Your task to perform on an android device: change timer sound Image 0: 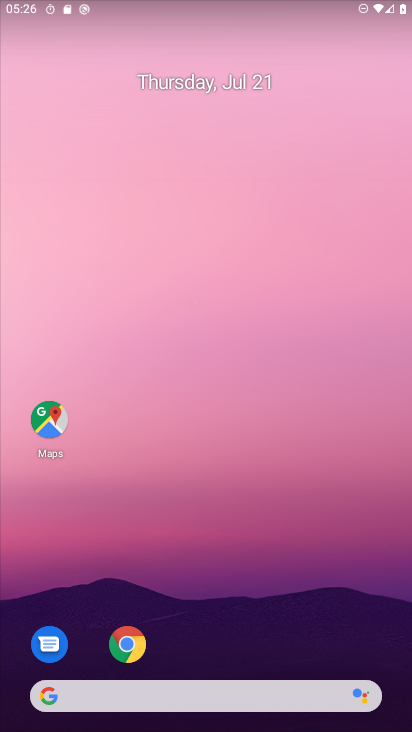
Step 0: click (190, 135)
Your task to perform on an android device: change timer sound Image 1: 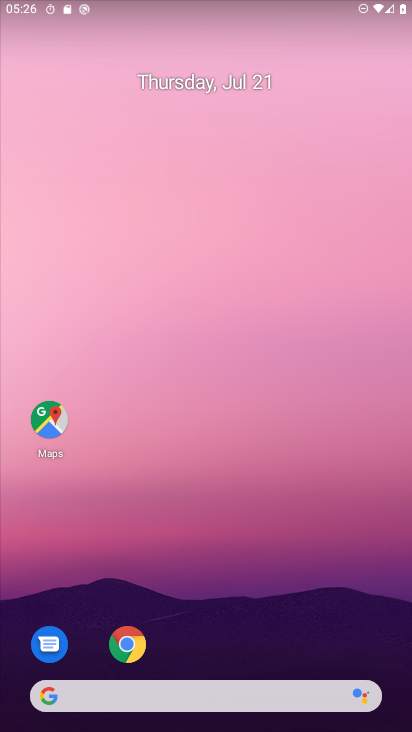
Step 1: drag from (191, 591) to (206, 115)
Your task to perform on an android device: change timer sound Image 2: 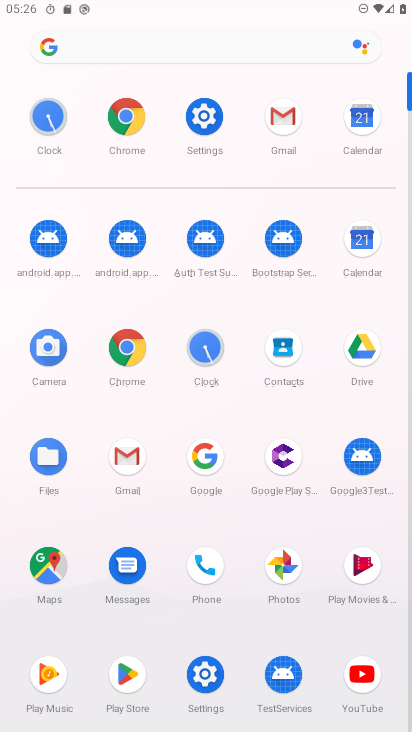
Step 2: click (207, 357)
Your task to perform on an android device: change timer sound Image 3: 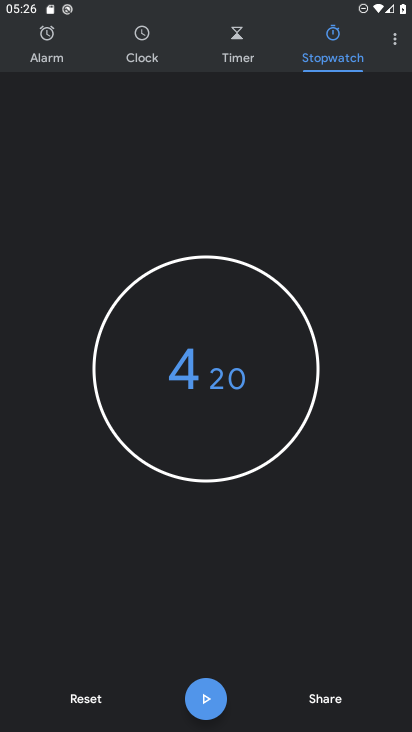
Step 3: click (393, 38)
Your task to perform on an android device: change timer sound Image 4: 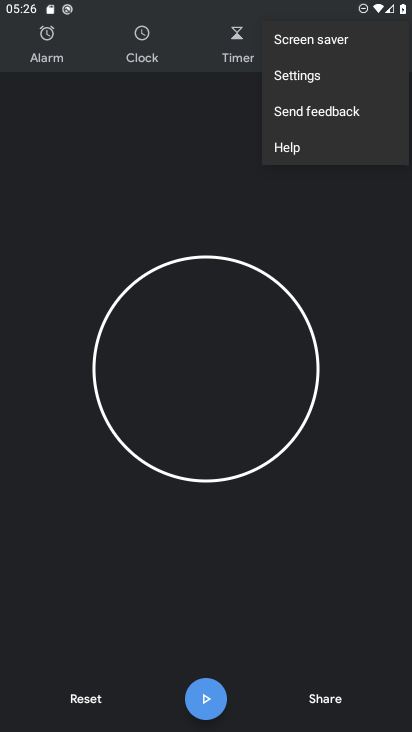
Step 4: click (313, 72)
Your task to perform on an android device: change timer sound Image 5: 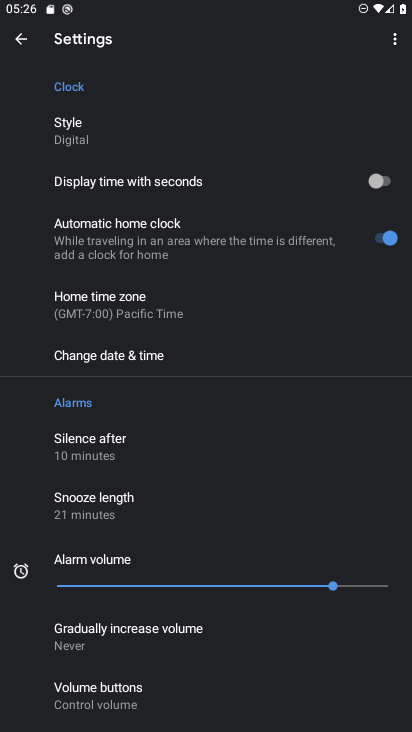
Step 5: drag from (90, 616) to (148, 233)
Your task to perform on an android device: change timer sound Image 6: 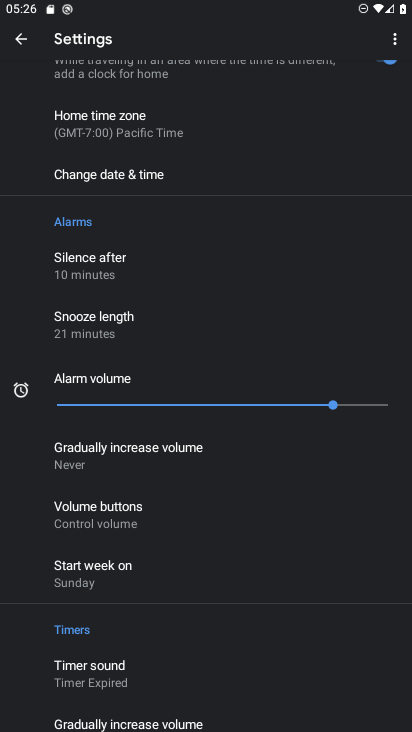
Step 6: click (144, 190)
Your task to perform on an android device: change timer sound Image 7: 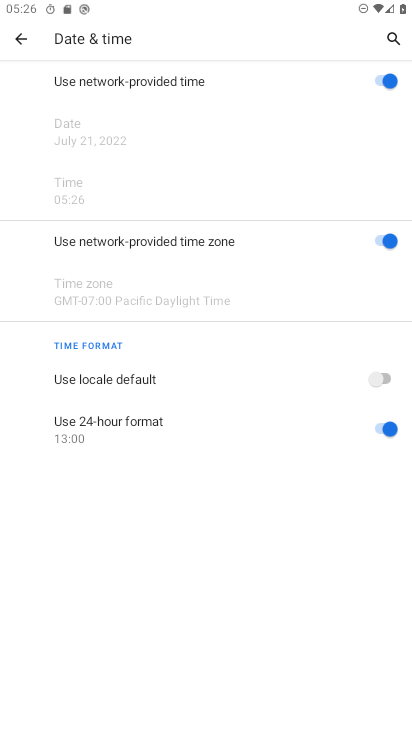
Step 7: click (23, 39)
Your task to perform on an android device: change timer sound Image 8: 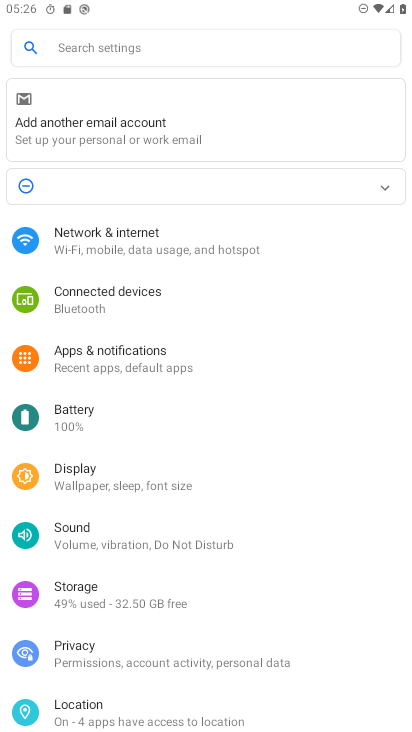
Step 8: press back button
Your task to perform on an android device: change timer sound Image 9: 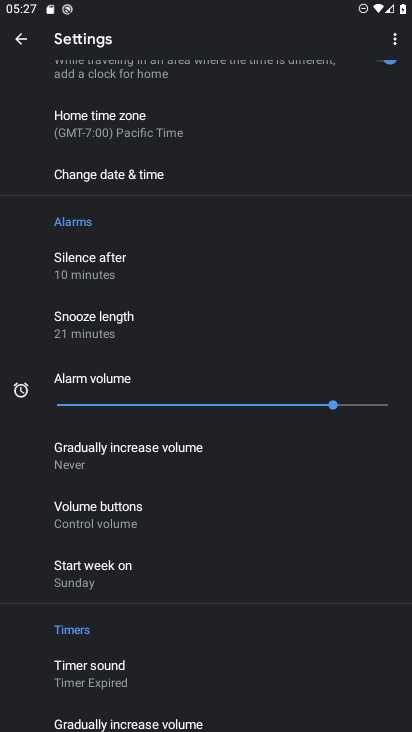
Step 9: click (90, 667)
Your task to perform on an android device: change timer sound Image 10: 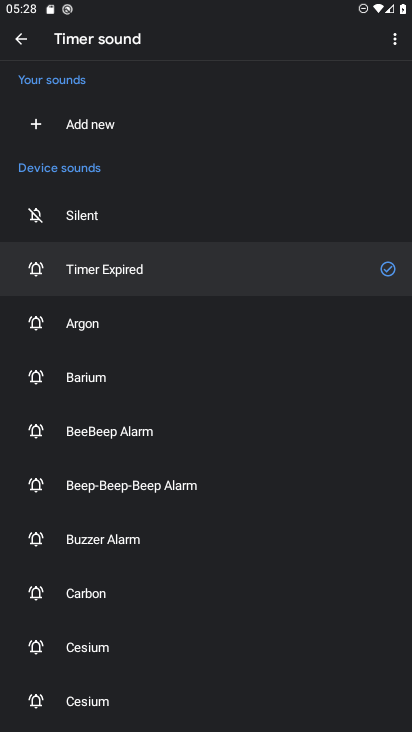
Step 10: click (91, 322)
Your task to perform on an android device: change timer sound Image 11: 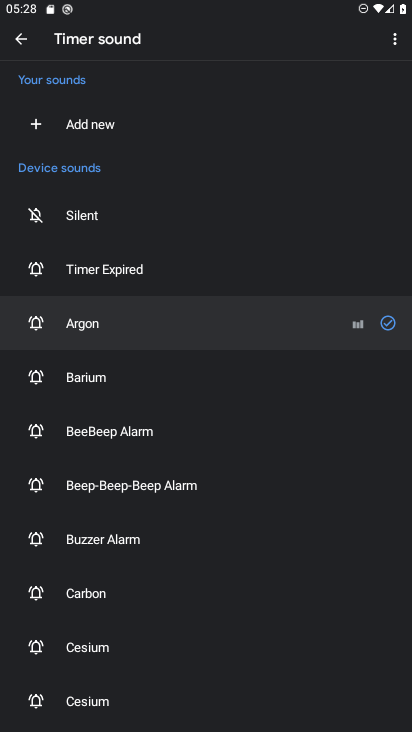
Step 11: task complete